Your task to perform on an android device: Show me productivity apps on the Play Store Image 0: 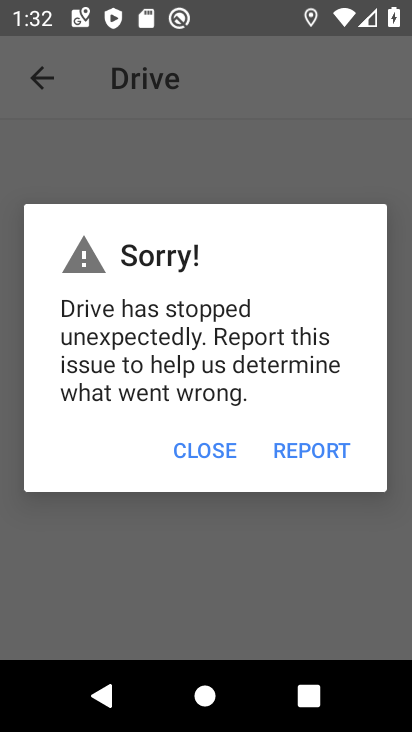
Step 0: click (211, 451)
Your task to perform on an android device: Show me productivity apps on the Play Store Image 1: 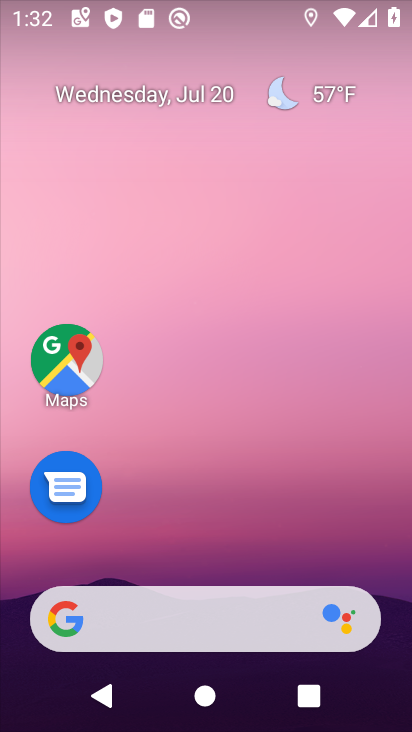
Step 1: drag from (203, 567) to (244, 73)
Your task to perform on an android device: Show me productivity apps on the Play Store Image 2: 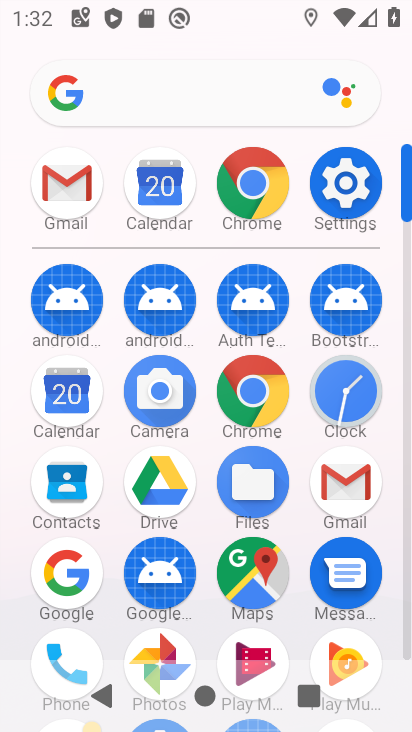
Step 2: drag from (165, 576) to (233, 154)
Your task to perform on an android device: Show me productivity apps on the Play Store Image 3: 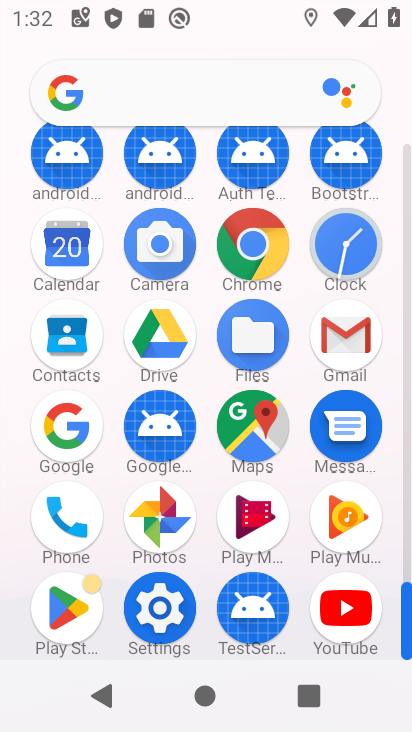
Step 3: click (67, 602)
Your task to perform on an android device: Show me productivity apps on the Play Store Image 4: 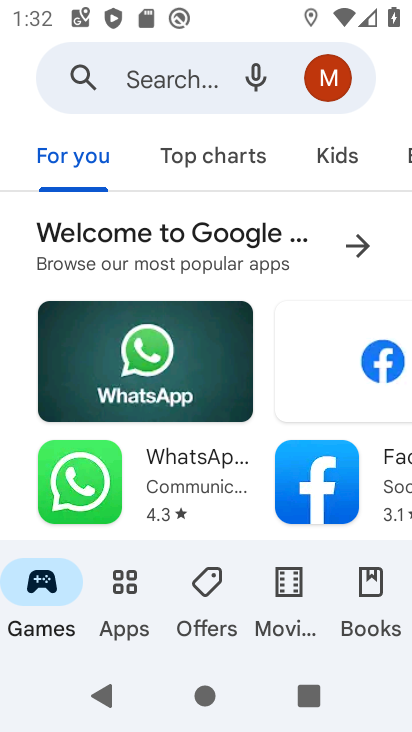
Step 4: drag from (186, 513) to (314, 23)
Your task to perform on an android device: Show me productivity apps on the Play Store Image 5: 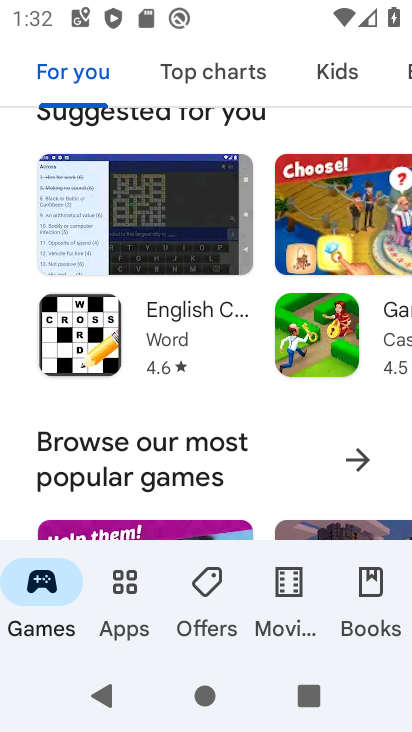
Step 5: click (118, 607)
Your task to perform on an android device: Show me productivity apps on the Play Store Image 6: 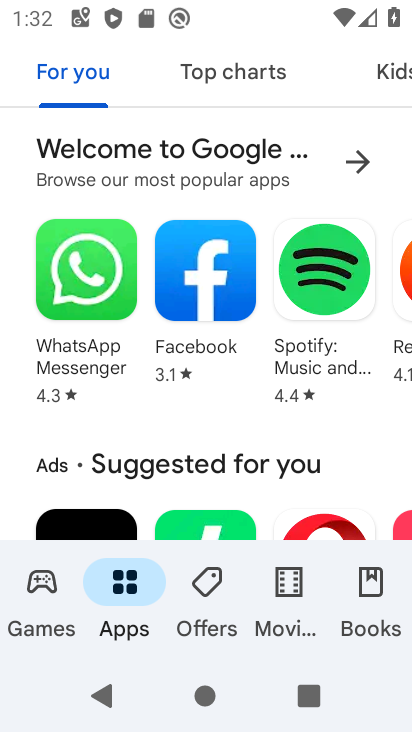
Step 6: drag from (174, 466) to (394, 44)
Your task to perform on an android device: Show me productivity apps on the Play Store Image 7: 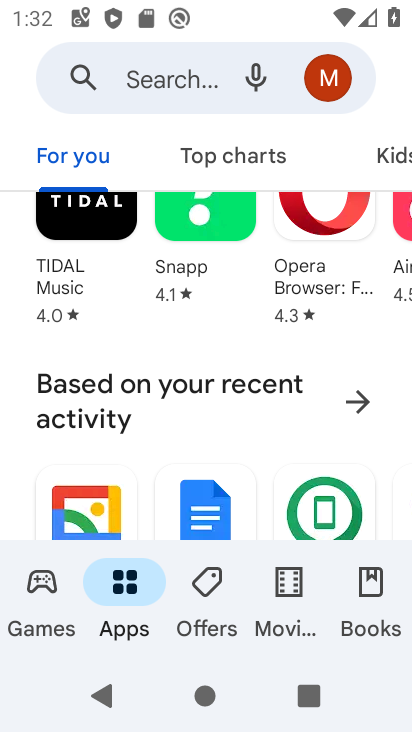
Step 7: drag from (193, 477) to (278, 167)
Your task to perform on an android device: Show me productivity apps on the Play Store Image 8: 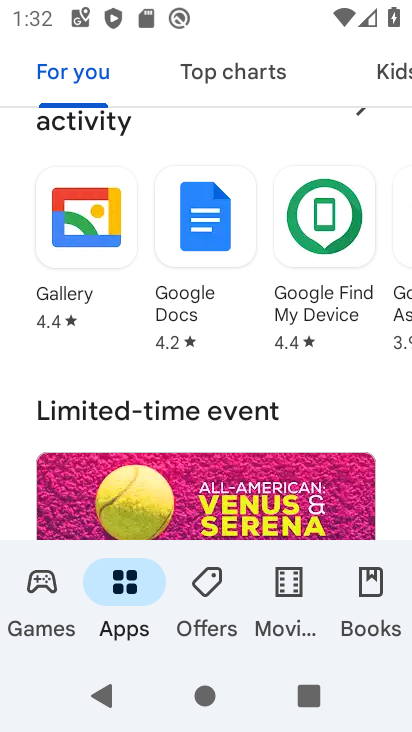
Step 8: drag from (186, 495) to (269, 187)
Your task to perform on an android device: Show me productivity apps on the Play Store Image 9: 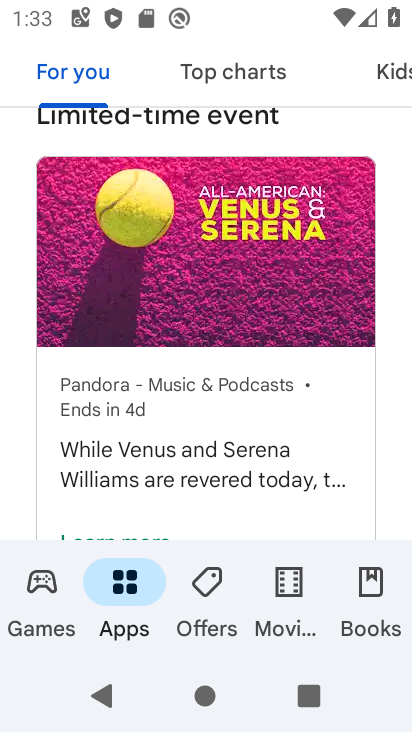
Step 9: drag from (194, 465) to (329, 53)
Your task to perform on an android device: Show me productivity apps on the Play Store Image 10: 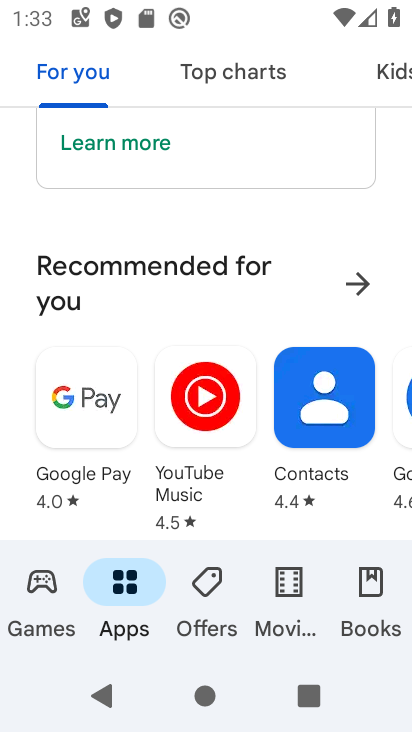
Step 10: drag from (198, 484) to (269, 154)
Your task to perform on an android device: Show me productivity apps on the Play Store Image 11: 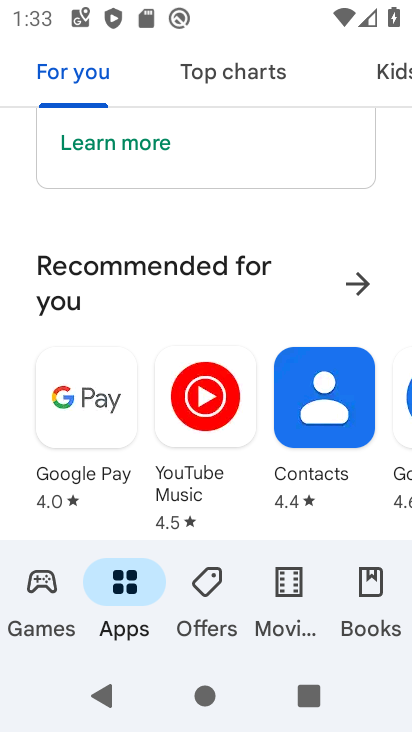
Step 11: drag from (255, 490) to (298, 121)
Your task to perform on an android device: Show me productivity apps on the Play Store Image 12: 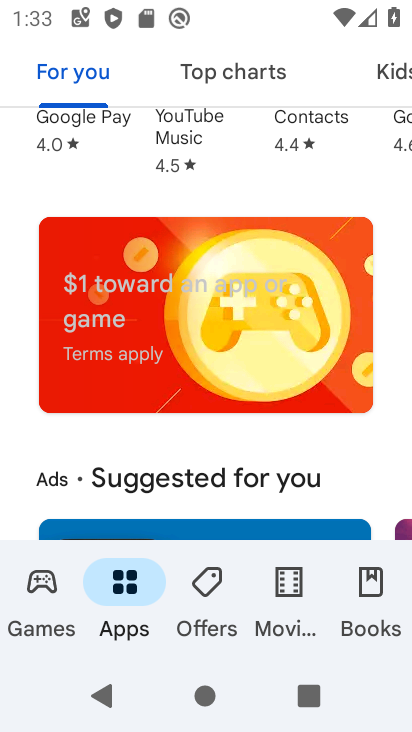
Step 12: drag from (247, 374) to (317, 152)
Your task to perform on an android device: Show me productivity apps on the Play Store Image 13: 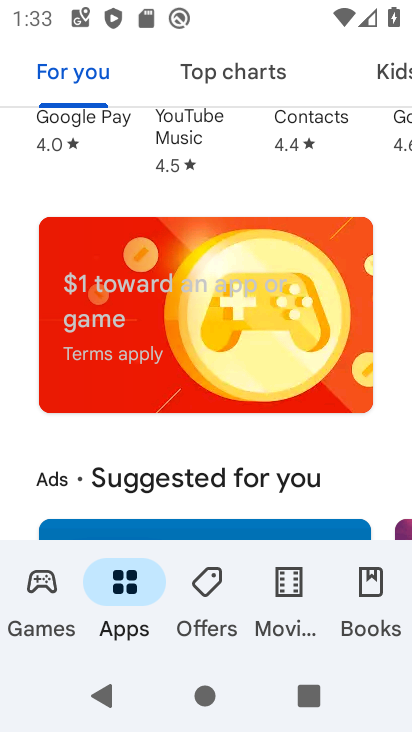
Step 13: drag from (255, 195) to (301, 91)
Your task to perform on an android device: Show me productivity apps on the Play Store Image 14: 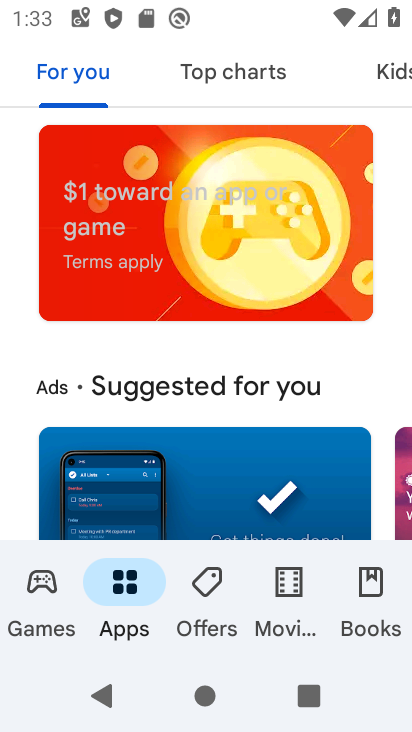
Step 14: drag from (201, 487) to (324, 48)
Your task to perform on an android device: Show me productivity apps on the Play Store Image 15: 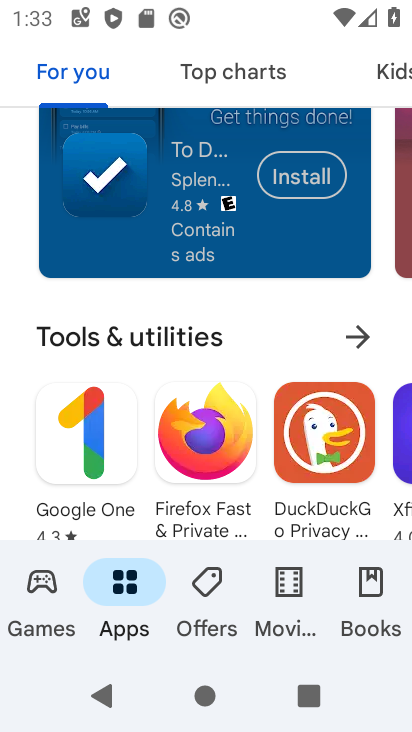
Step 15: drag from (245, 468) to (306, 24)
Your task to perform on an android device: Show me productivity apps on the Play Store Image 16: 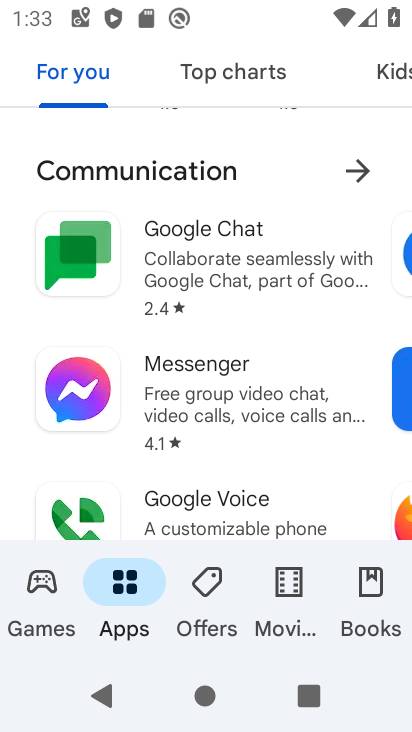
Step 16: drag from (245, 503) to (345, 34)
Your task to perform on an android device: Show me productivity apps on the Play Store Image 17: 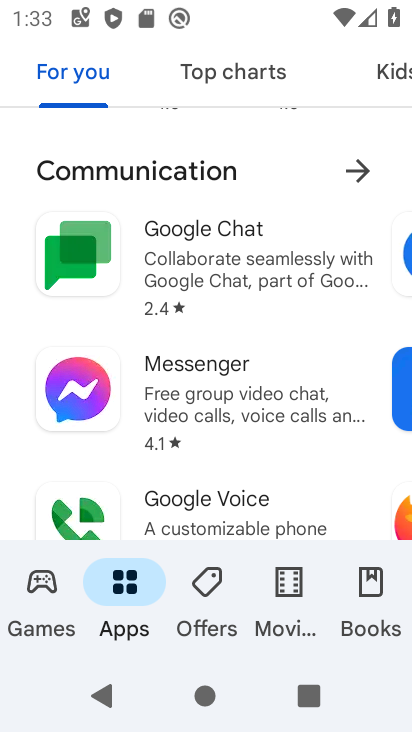
Step 17: drag from (232, 501) to (253, 105)
Your task to perform on an android device: Show me productivity apps on the Play Store Image 18: 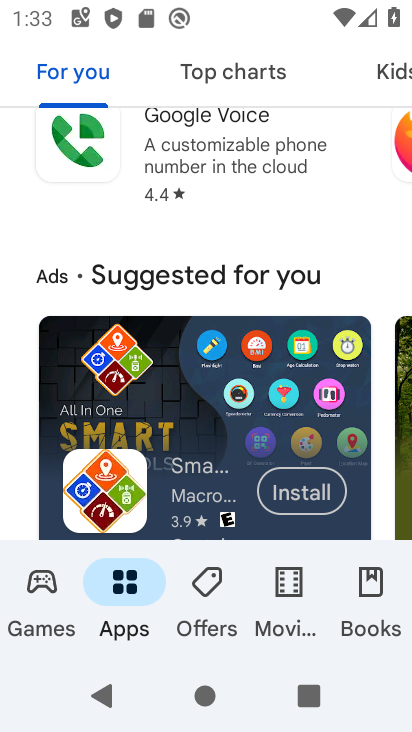
Step 18: drag from (246, 534) to (317, 26)
Your task to perform on an android device: Show me productivity apps on the Play Store Image 19: 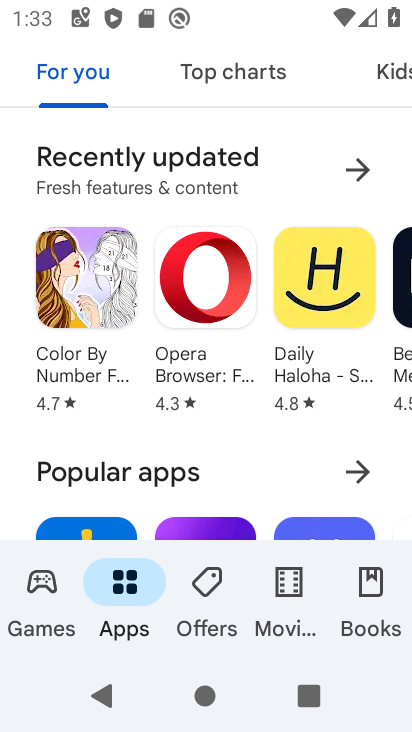
Step 19: click (269, 7)
Your task to perform on an android device: Show me productivity apps on the Play Store Image 20: 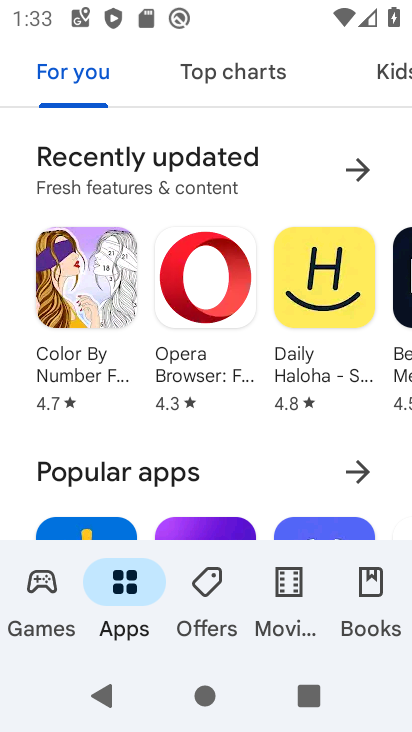
Step 20: drag from (189, 385) to (259, 79)
Your task to perform on an android device: Show me productivity apps on the Play Store Image 21: 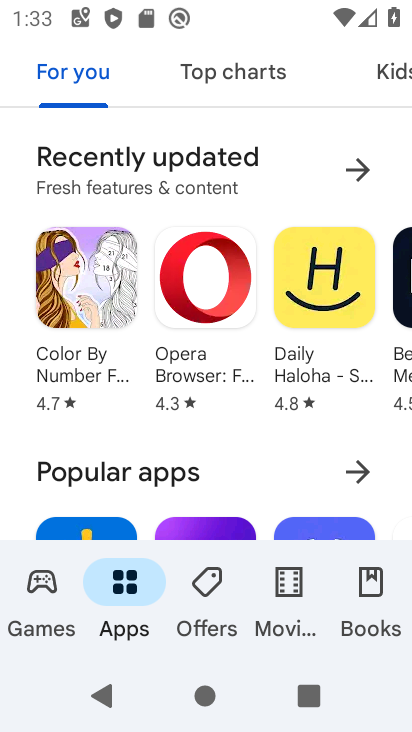
Step 21: drag from (16, 502) to (81, 109)
Your task to perform on an android device: Show me productivity apps on the Play Store Image 22: 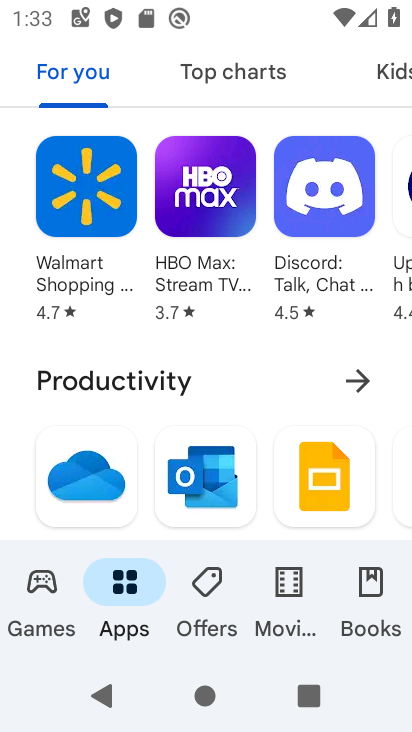
Step 22: click (356, 379)
Your task to perform on an android device: Show me productivity apps on the Play Store Image 23: 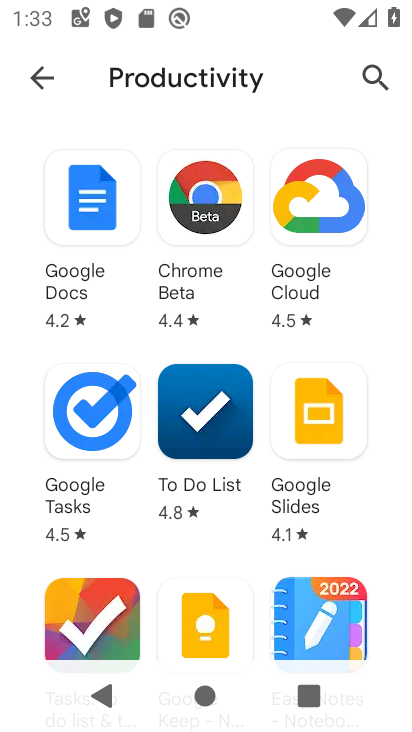
Step 23: task complete